Your task to perform on an android device: Go to internet settings Image 0: 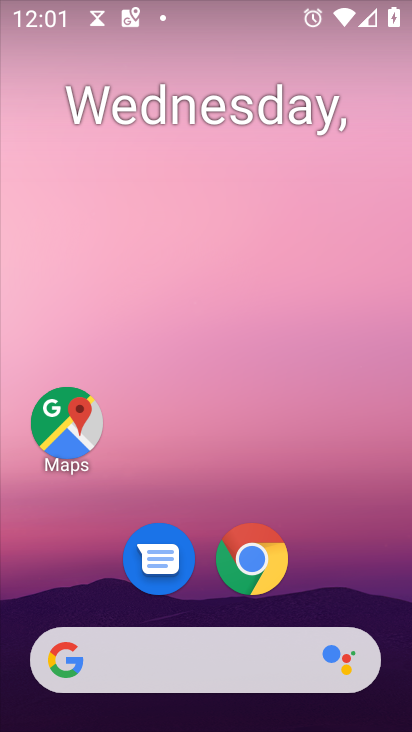
Step 0: drag from (337, 572) to (342, 72)
Your task to perform on an android device: Go to internet settings Image 1: 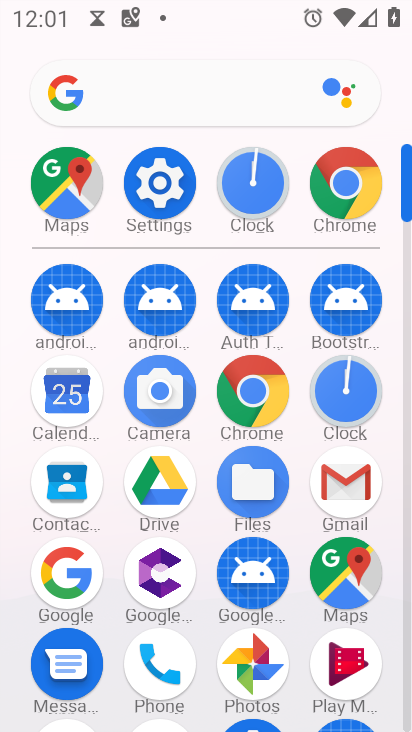
Step 1: click (165, 176)
Your task to perform on an android device: Go to internet settings Image 2: 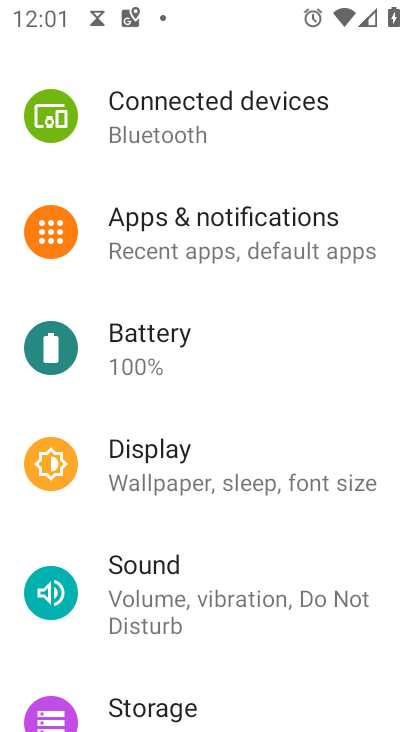
Step 2: drag from (207, 288) to (237, 727)
Your task to perform on an android device: Go to internet settings Image 3: 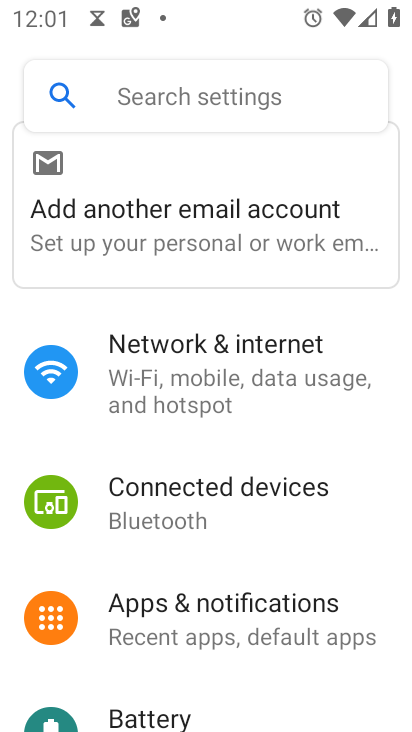
Step 3: click (174, 356)
Your task to perform on an android device: Go to internet settings Image 4: 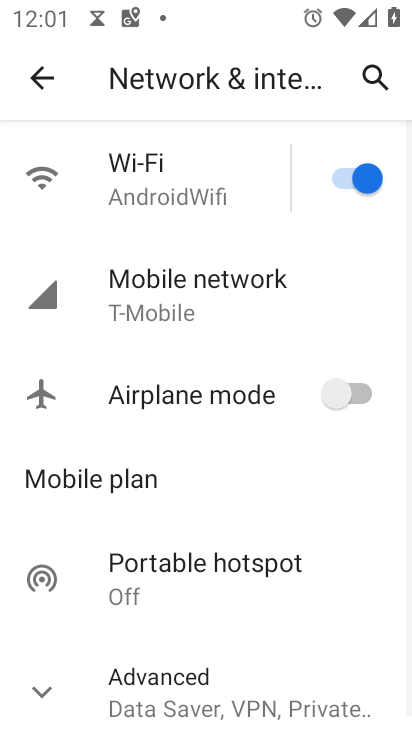
Step 4: task complete